Your task to perform on an android device: Go to location settings Image 0: 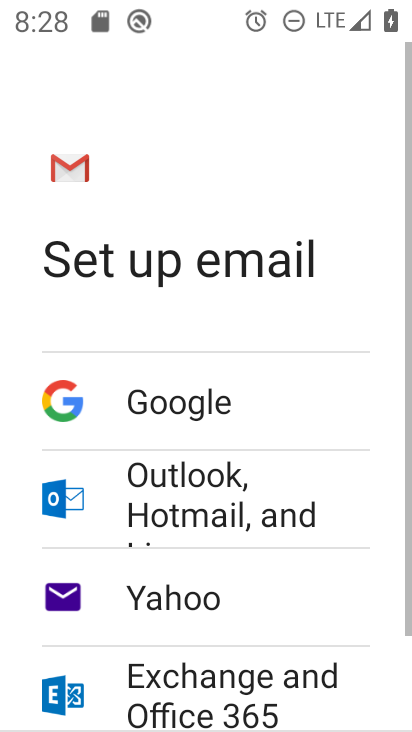
Step 0: press home button
Your task to perform on an android device: Go to location settings Image 1: 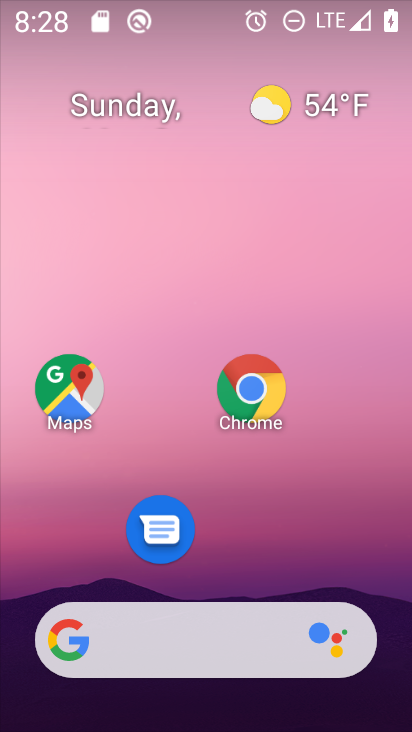
Step 1: drag from (258, 568) to (317, 0)
Your task to perform on an android device: Go to location settings Image 2: 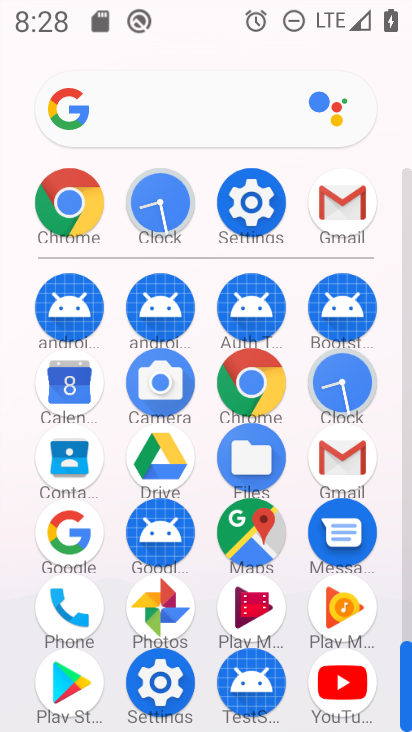
Step 2: click (263, 199)
Your task to perform on an android device: Go to location settings Image 3: 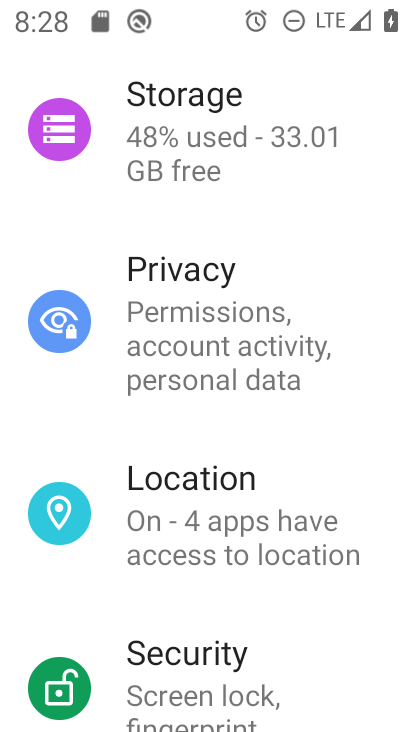
Step 3: click (206, 507)
Your task to perform on an android device: Go to location settings Image 4: 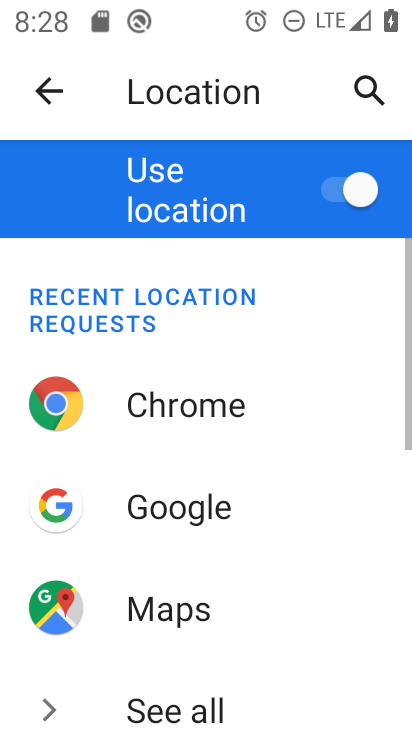
Step 4: task complete